Your task to perform on an android device: turn off data saver in the chrome app Image 0: 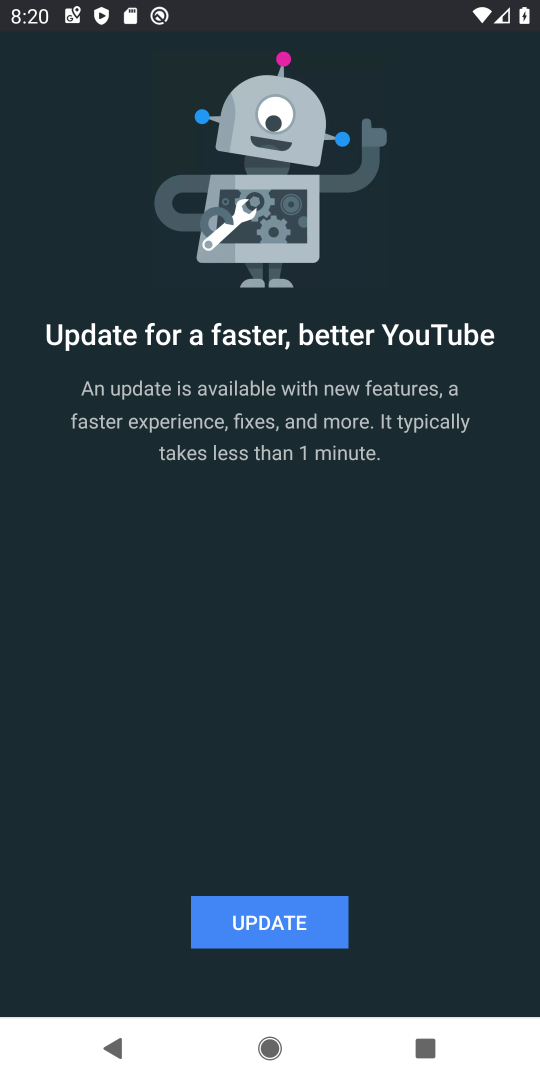
Step 0: press home button
Your task to perform on an android device: turn off data saver in the chrome app Image 1: 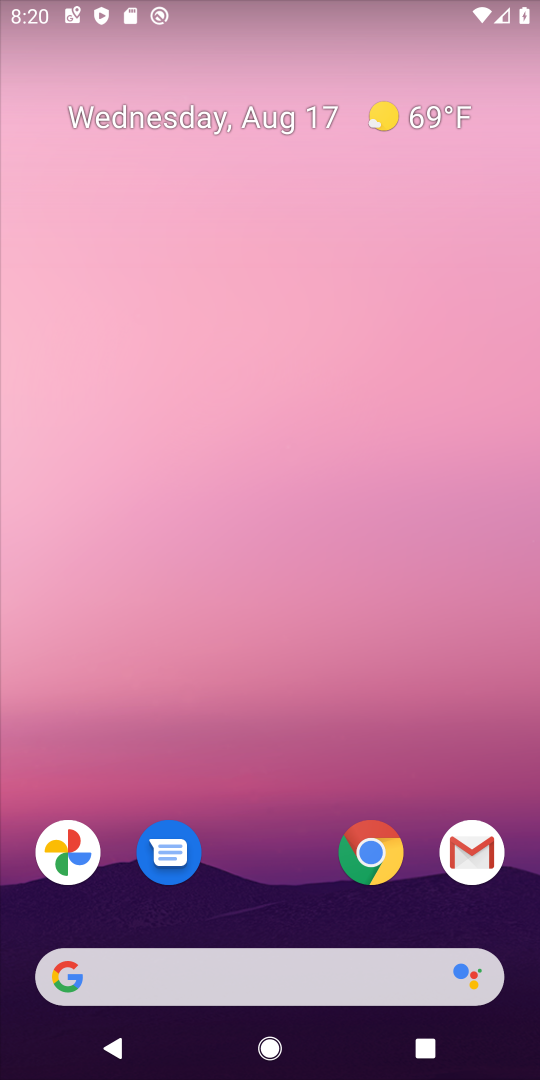
Step 1: click (370, 853)
Your task to perform on an android device: turn off data saver in the chrome app Image 2: 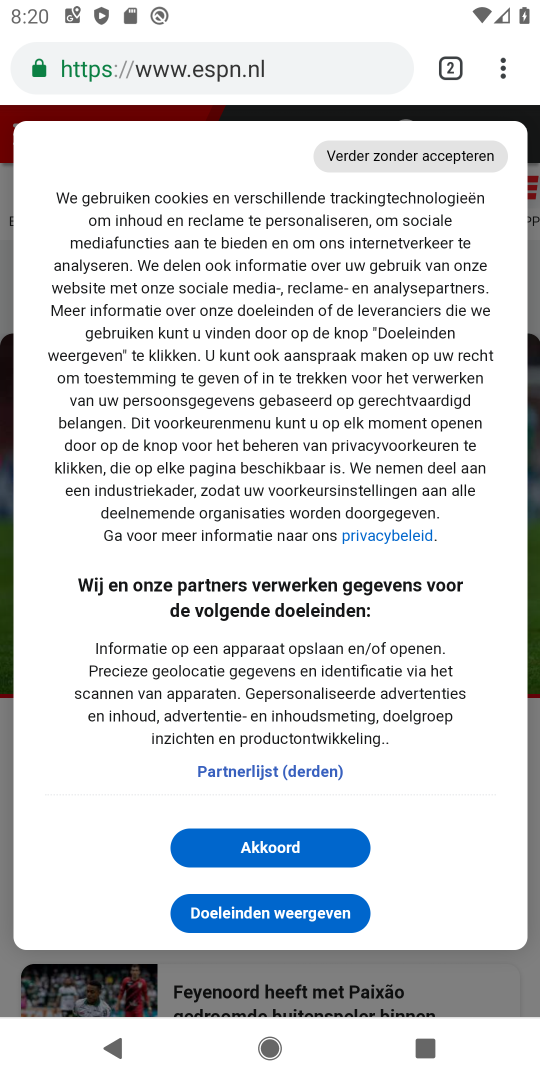
Step 2: click (501, 69)
Your task to perform on an android device: turn off data saver in the chrome app Image 3: 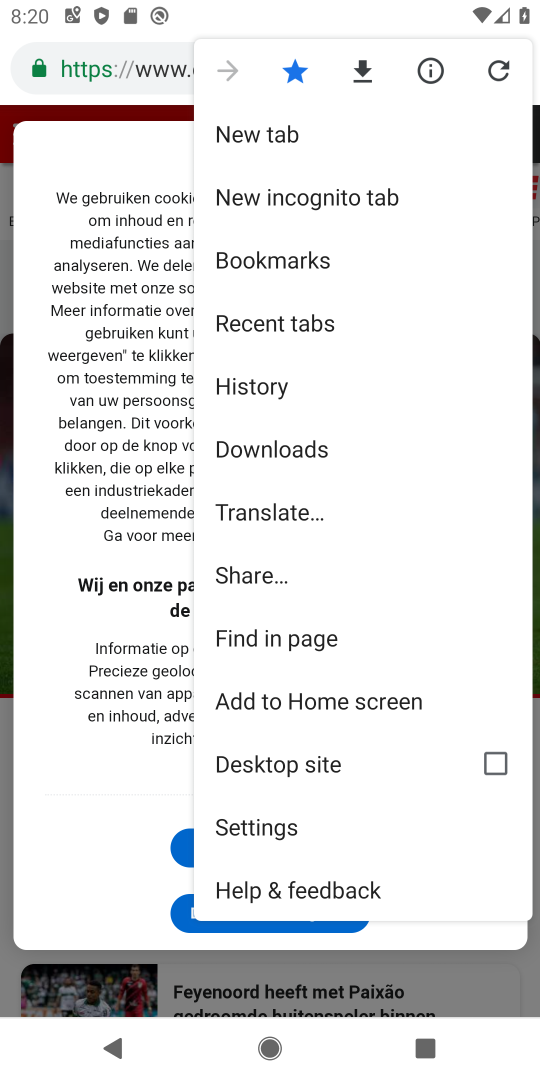
Step 3: click (228, 817)
Your task to perform on an android device: turn off data saver in the chrome app Image 4: 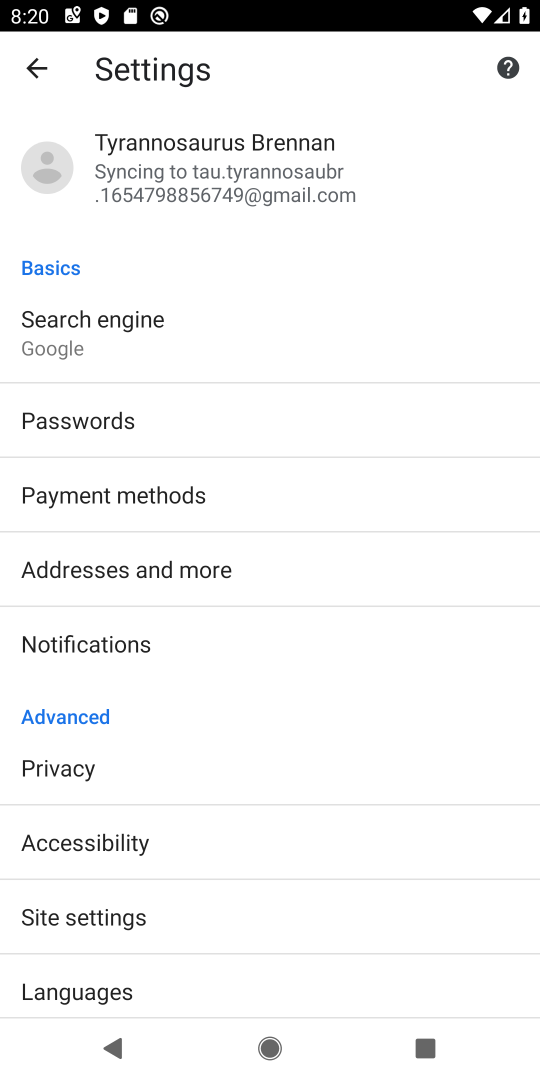
Step 4: drag from (240, 927) to (206, 632)
Your task to perform on an android device: turn off data saver in the chrome app Image 5: 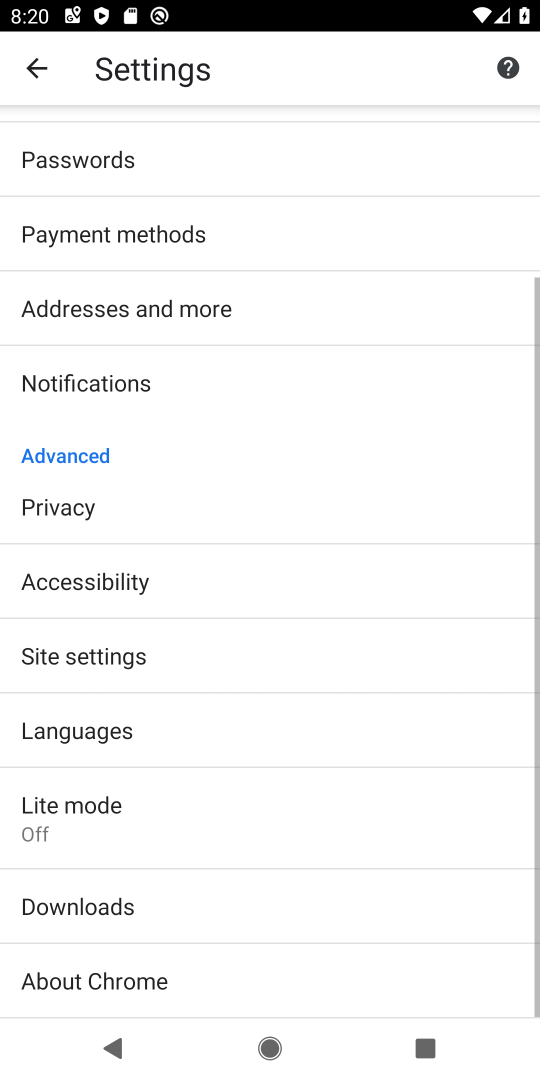
Step 5: click (74, 802)
Your task to perform on an android device: turn off data saver in the chrome app Image 6: 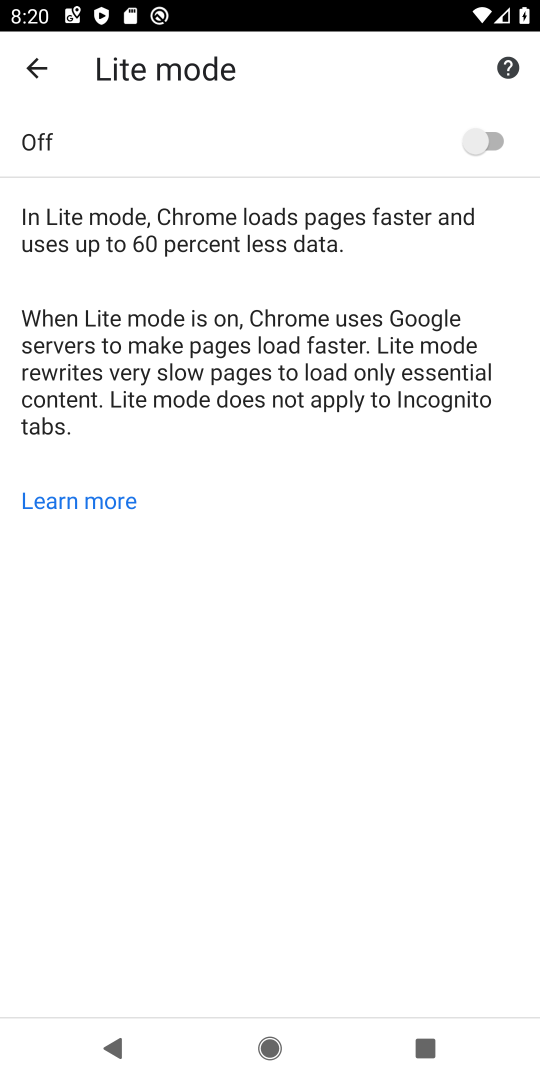
Step 6: task complete